Your task to perform on an android device: turn off picture-in-picture Image 0: 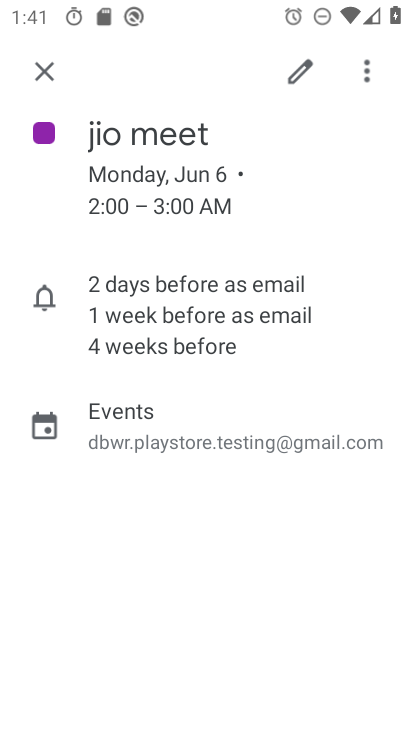
Step 0: press home button
Your task to perform on an android device: turn off picture-in-picture Image 1: 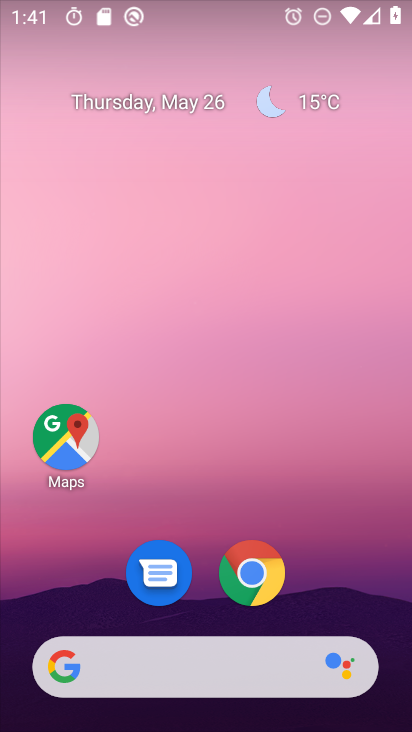
Step 1: click (258, 577)
Your task to perform on an android device: turn off picture-in-picture Image 2: 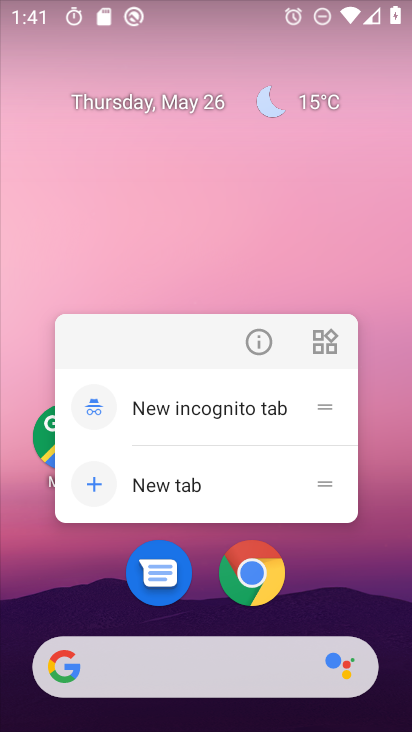
Step 2: click (258, 348)
Your task to perform on an android device: turn off picture-in-picture Image 3: 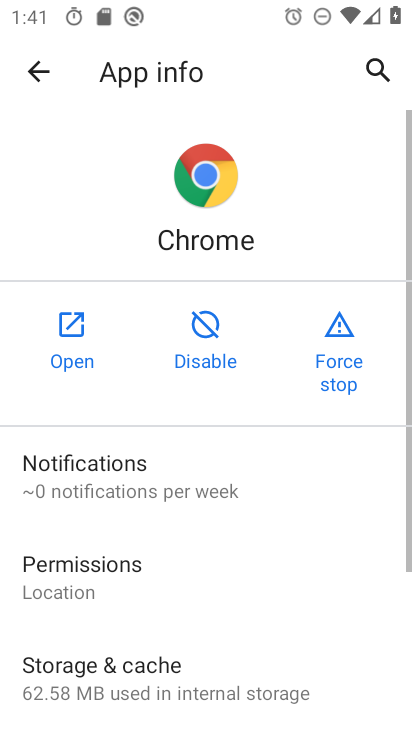
Step 3: drag from (146, 544) to (183, 73)
Your task to perform on an android device: turn off picture-in-picture Image 4: 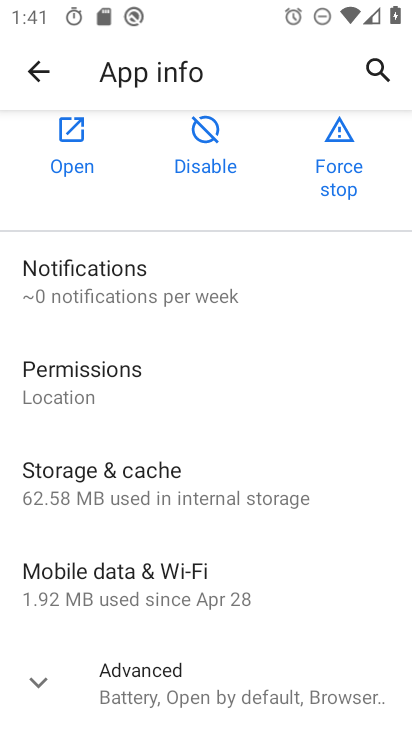
Step 4: click (35, 690)
Your task to perform on an android device: turn off picture-in-picture Image 5: 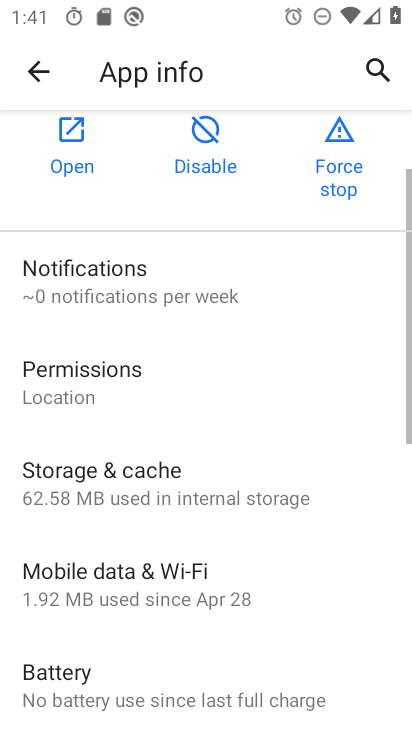
Step 5: drag from (161, 641) to (184, 145)
Your task to perform on an android device: turn off picture-in-picture Image 6: 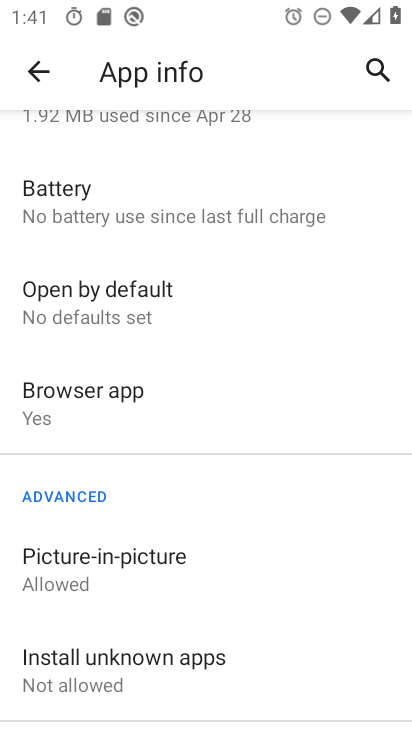
Step 6: click (108, 568)
Your task to perform on an android device: turn off picture-in-picture Image 7: 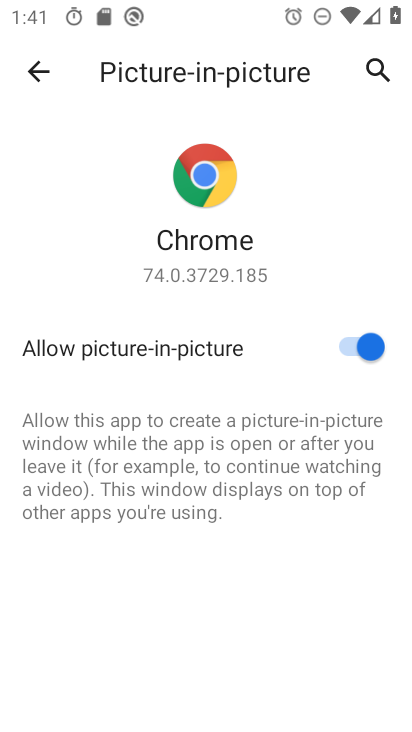
Step 7: click (360, 351)
Your task to perform on an android device: turn off picture-in-picture Image 8: 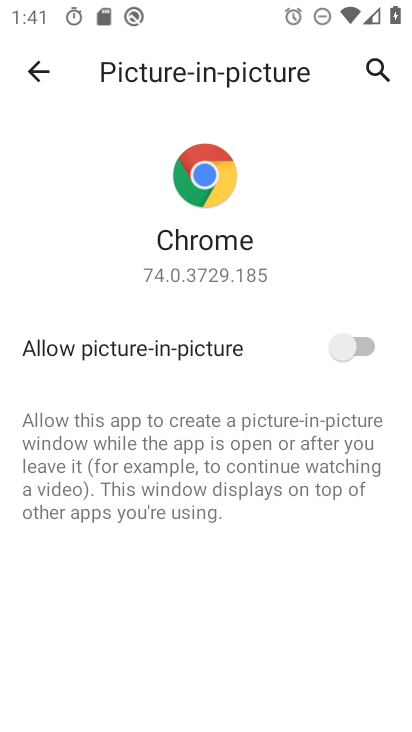
Step 8: task complete